Your task to perform on an android device: Go to accessibility settings Image 0: 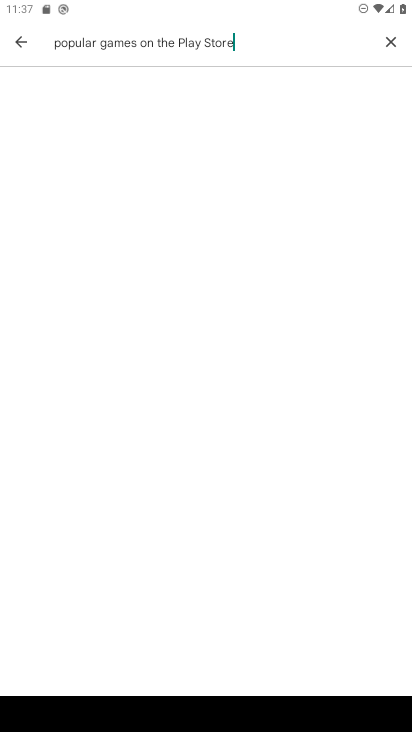
Step 0: press home button
Your task to perform on an android device: Go to accessibility settings Image 1: 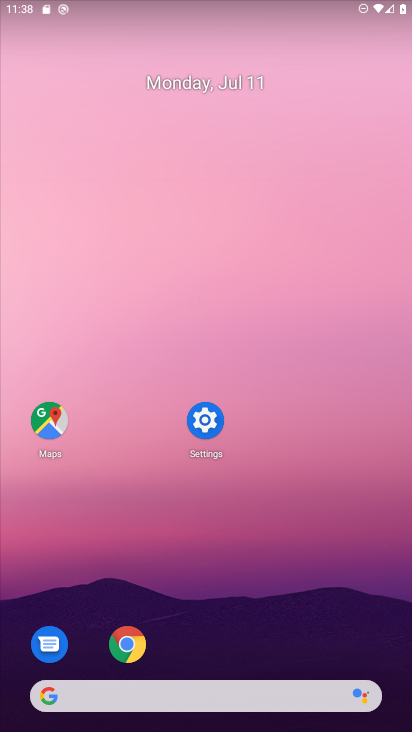
Step 1: click (192, 402)
Your task to perform on an android device: Go to accessibility settings Image 2: 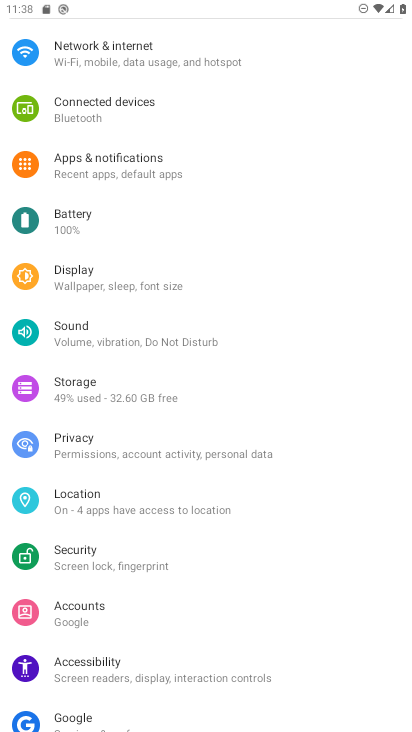
Step 2: click (76, 661)
Your task to perform on an android device: Go to accessibility settings Image 3: 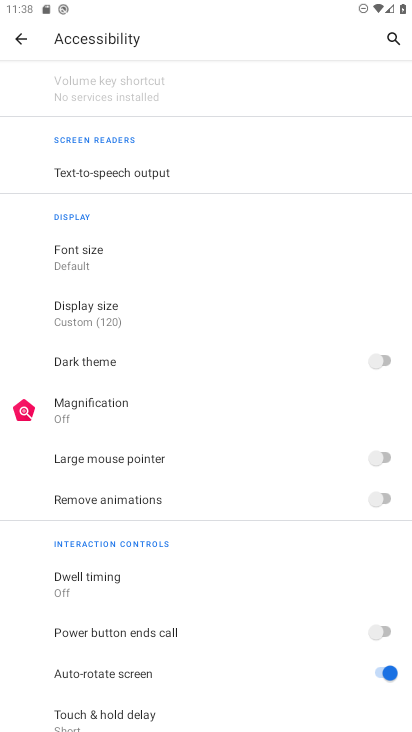
Step 3: task complete